Your task to perform on an android device: Go to Maps Image 0: 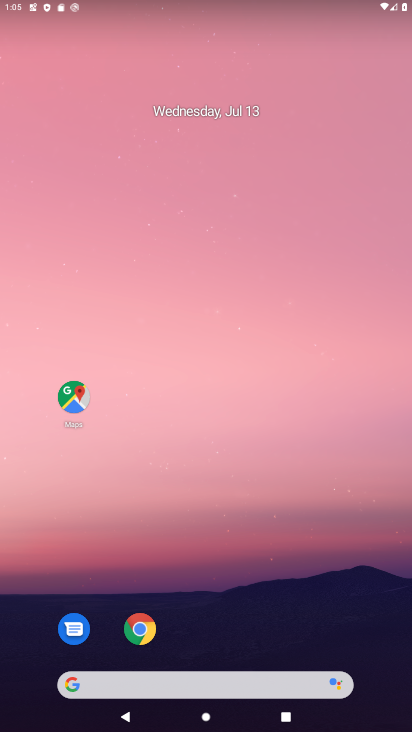
Step 0: drag from (196, 561) to (272, 240)
Your task to perform on an android device: Go to Maps Image 1: 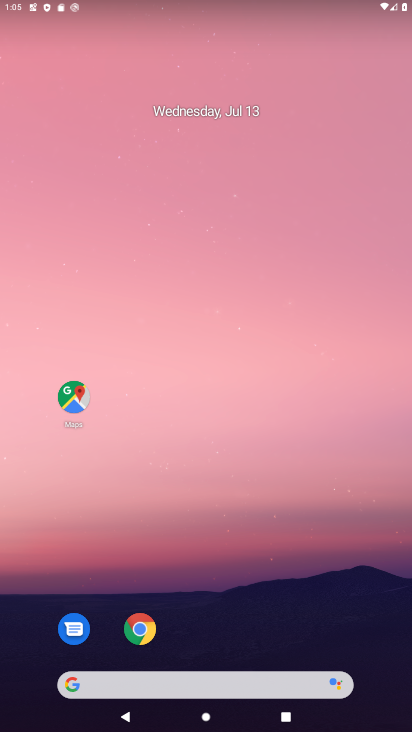
Step 1: click (68, 389)
Your task to perform on an android device: Go to Maps Image 2: 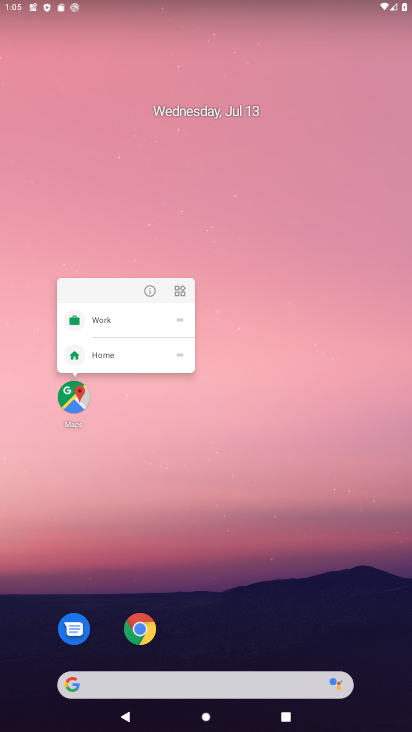
Step 2: click (158, 285)
Your task to perform on an android device: Go to Maps Image 3: 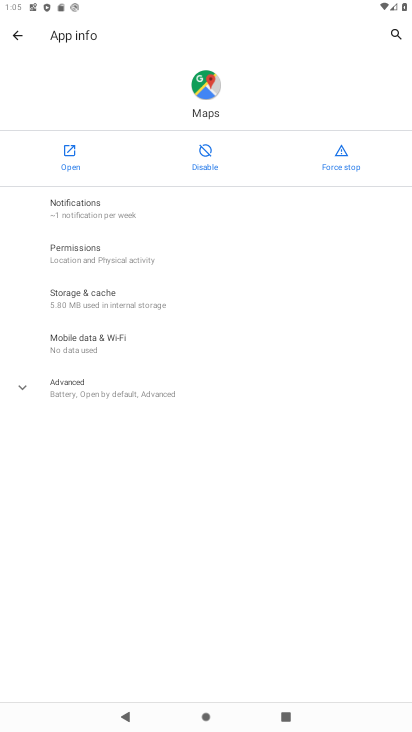
Step 3: click (72, 158)
Your task to perform on an android device: Go to Maps Image 4: 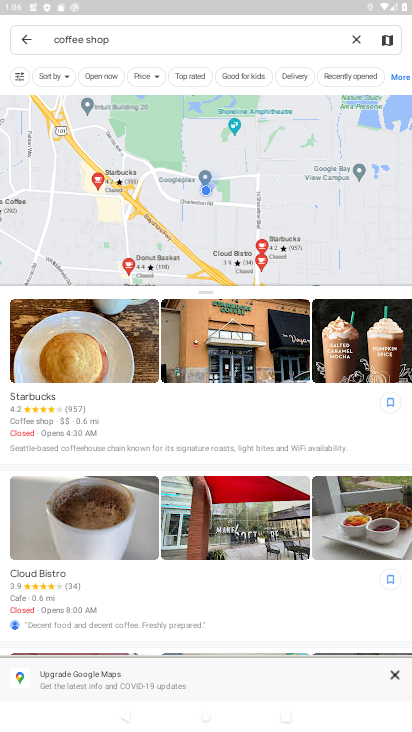
Step 4: task complete